Your task to perform on an android device: read, delete, or share a saved page in the chrome app Image 0: 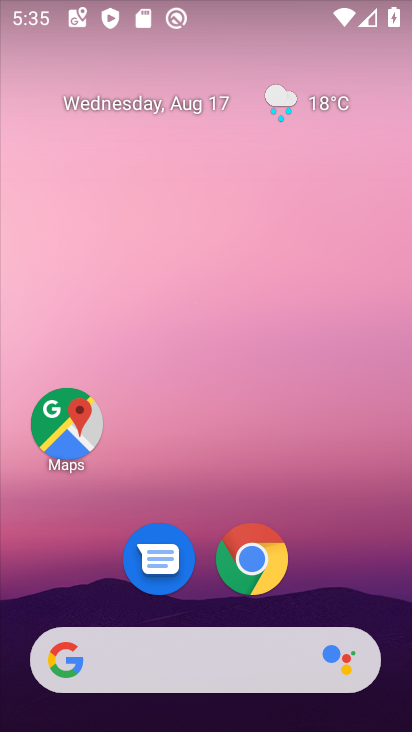
Step 0: click (236, 560)
Your task to perform on an android device: read, delete, or share a saved page in the chrome app Image 1: 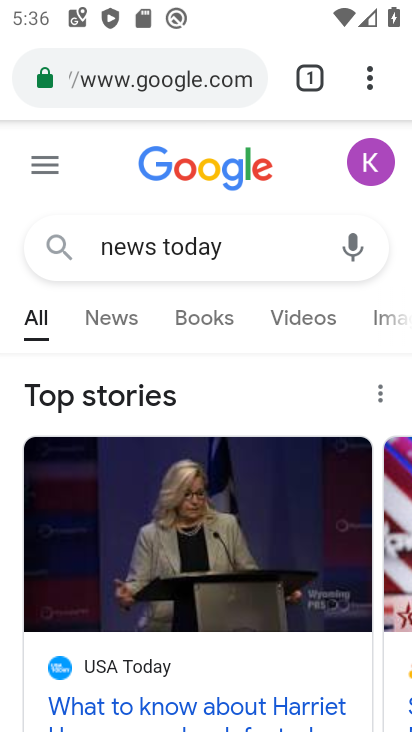
Step 1: drag from (357, 78) to (122, 505)
Your task to perform on an android device: read, delete, or share a saved page in the chrome app Image 2: 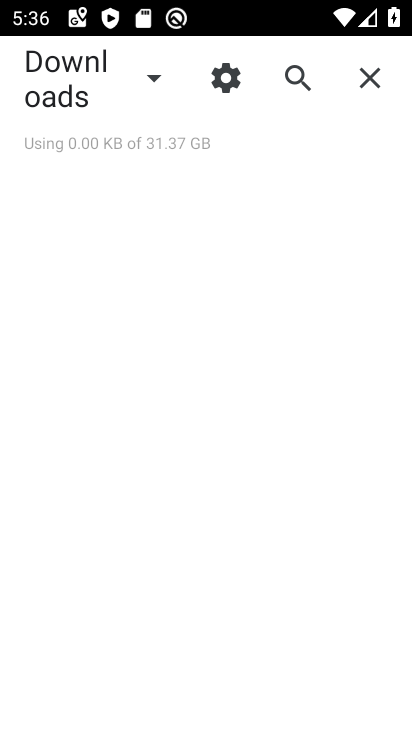
Step 2: click (132, 65)
Your task to perform on an android device: read, delete, or share a saved page in the chrome app Image 3: 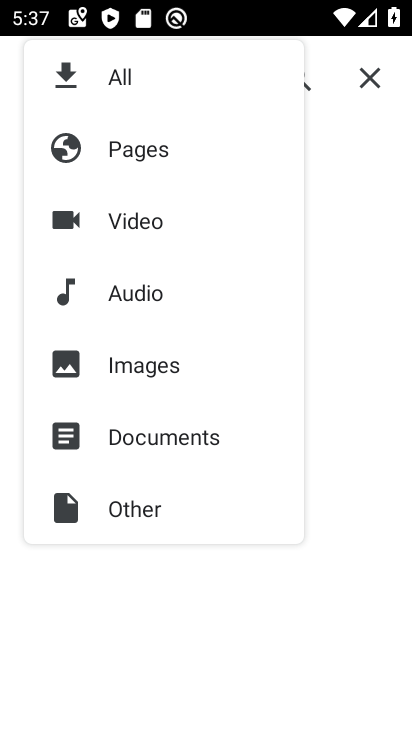
Step 3: click (106, 153)
Your task to perform on an android device: read, delete, or share a saved page in the chrome app Image 4: 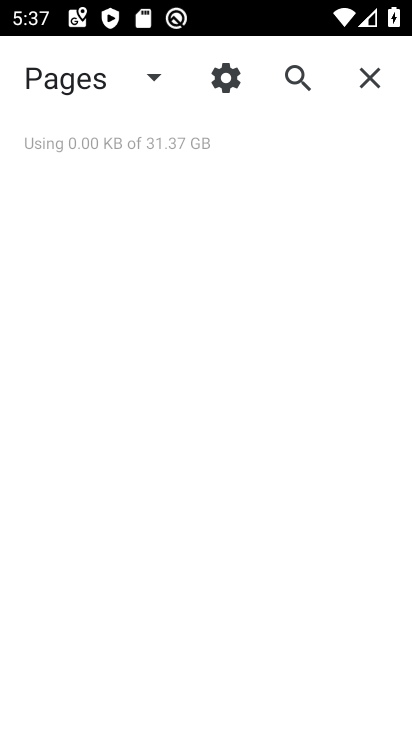
Step 4: task complete